Your task to perform on an android device: Show me popular games on the Play Store Image 0: 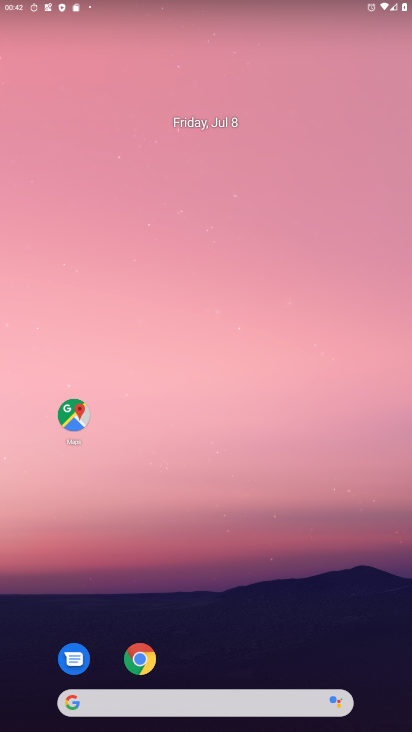
Step 0: drag from (212, 649) to (192, 59)
Your task to perform on an android device: Show me popular games on the Play Store Image 1: 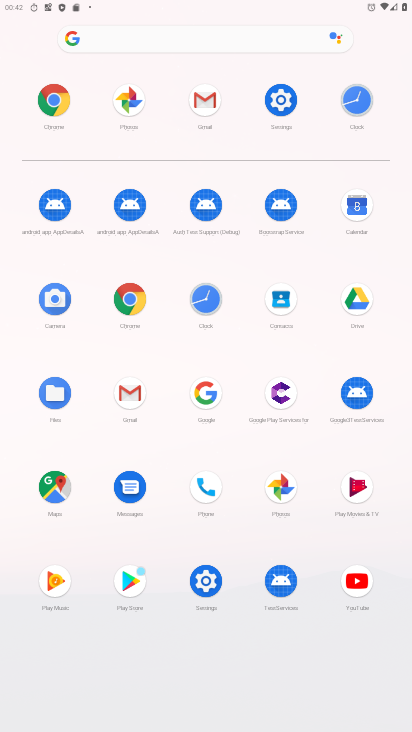
Step 1: click (136, 590)
Your task to perform on an android device: Show me popular games on the Play Store Image 2: 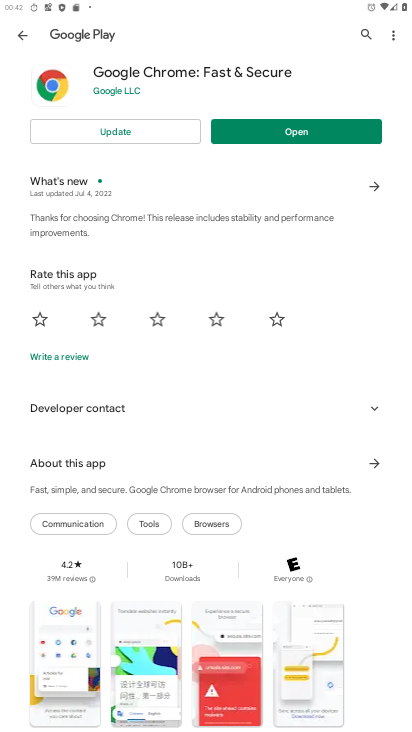
Step 2: click (33, 38)
Your task to perform on an android device: Show me popular games on the Play Store Image 3: 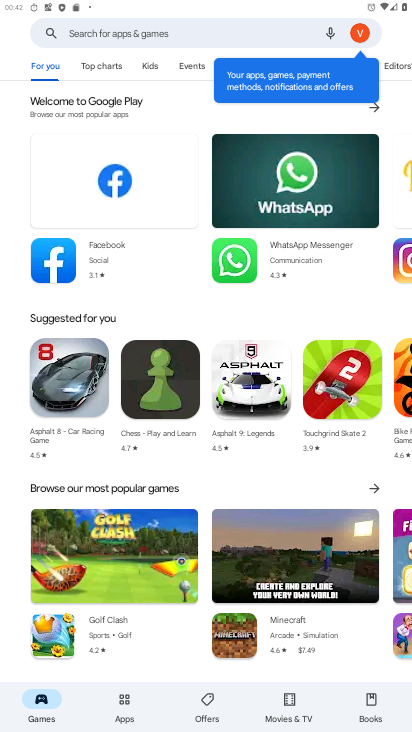
Step 3: click (88, 70)
Your task to perform on an android device: Show me popular games on the Play Store Image 4: 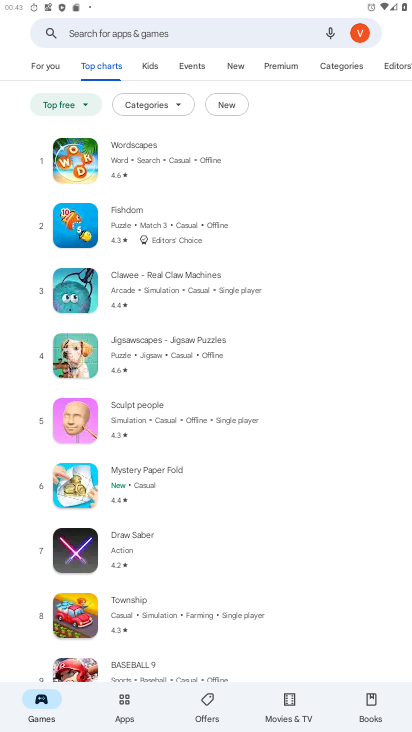
Step 4: task complete